Your task to perform on an android device: change notification settings in the gmail app Image 0: 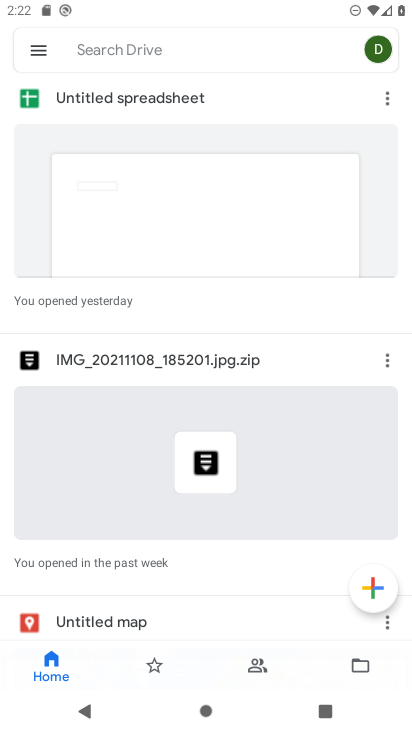
Step 0: press home button
Your task to perform on an android device: change notification settings in the gmail app Image 1: 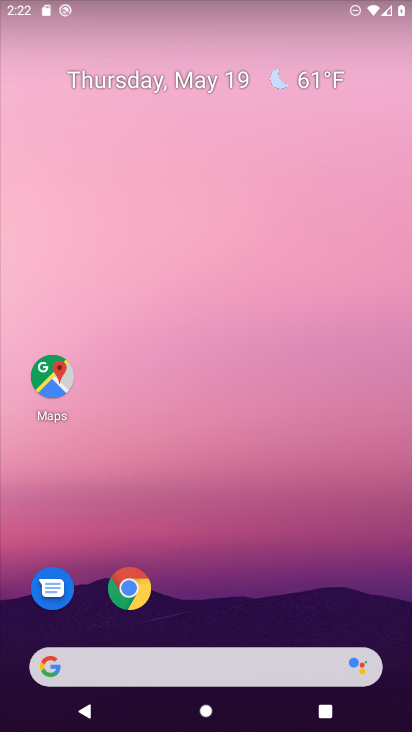
Step 1: drag from (344, 637) to (326, 7)
Your task to perform on an android device: change notification settings in the gmail app Image 2: 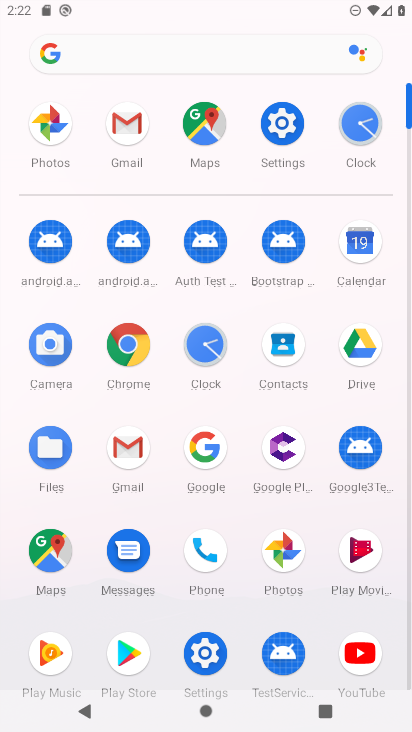
Step 2: click (123, 132)
Your task to perform on an android device: change notification settings in the gmail app Image 3: 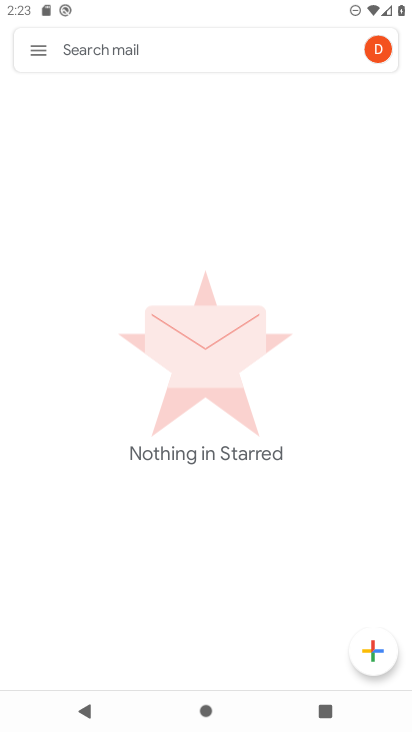
Step 3: click (32, 61)
Your task to perform on an android device: change notification settings in the gmail app Image 4: 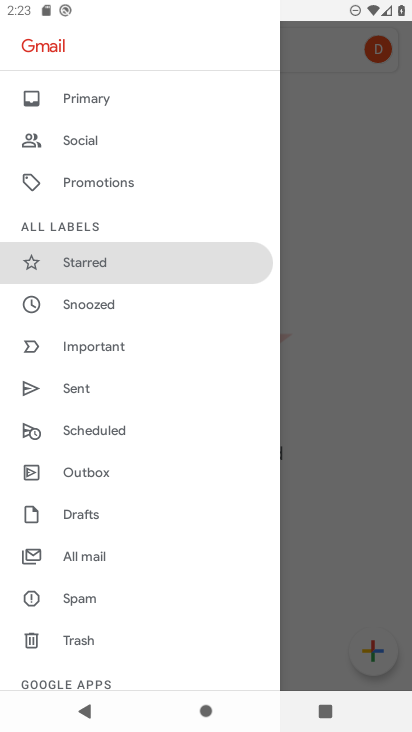
Step 4: drag from (154, 587) to (127, 163)
Your task to perform on an android device: change notification settings in the gmail app Image 5: 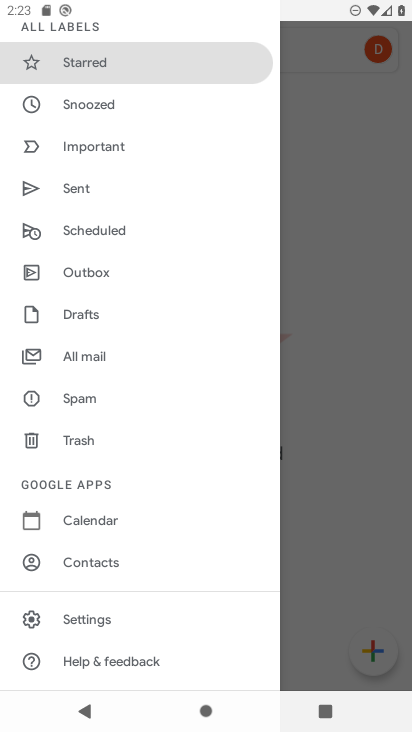
Step 5: click (72, 624)
Your task to perform on an android device: change notification settings in the gmail app Image 6: 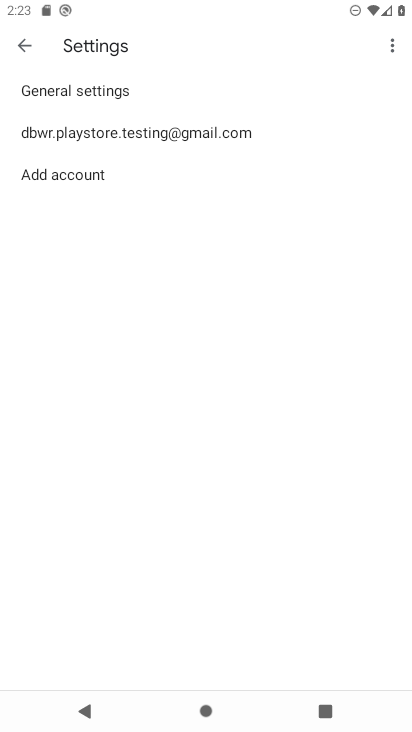
Step 6: click (36, 83)
Your task to perform on an android device: change notification settings in the gmail app Image 7: 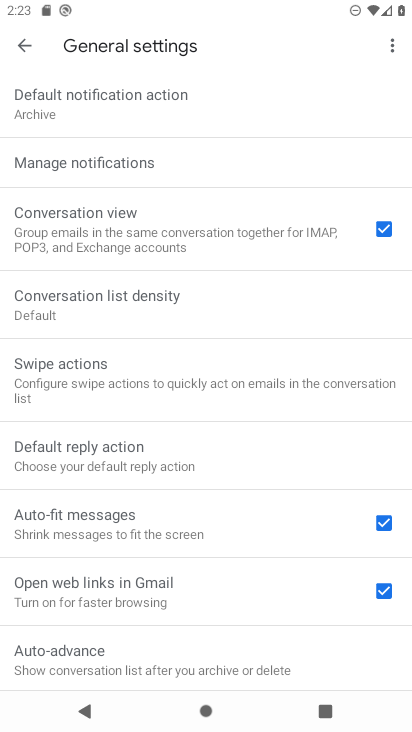
Step 7: click (70, 164)
Your task to perform on an android device: change notification settings in the gmail app Image 8: 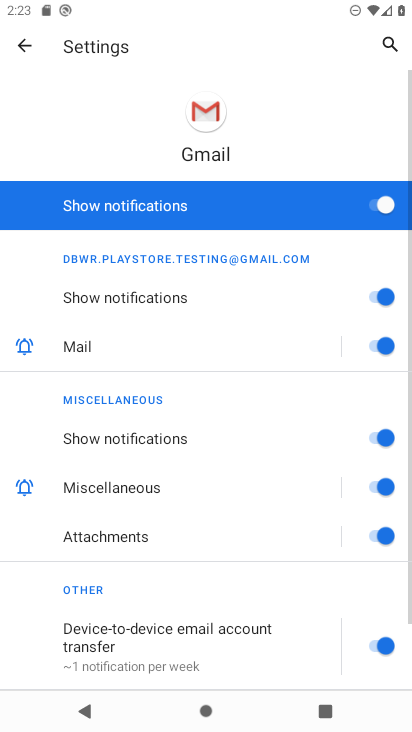
Step 8: click (387, 212)
Your task to perform on an android device: change notification settings in the gmail app Image 9: 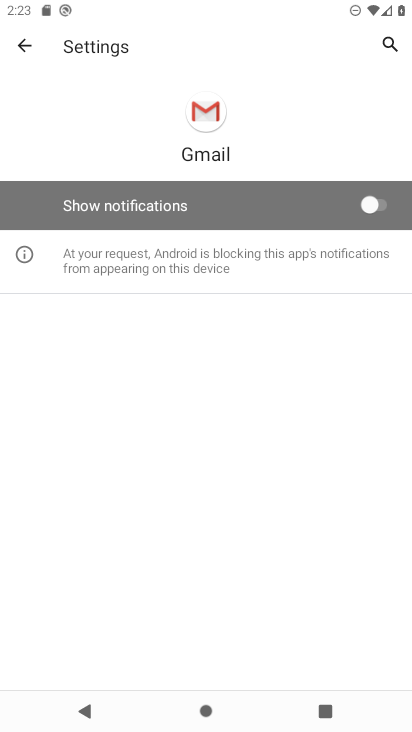
Step 9: task complete